Your task to perform on an android device: toggle priority inbox in the gmail app Image 0: 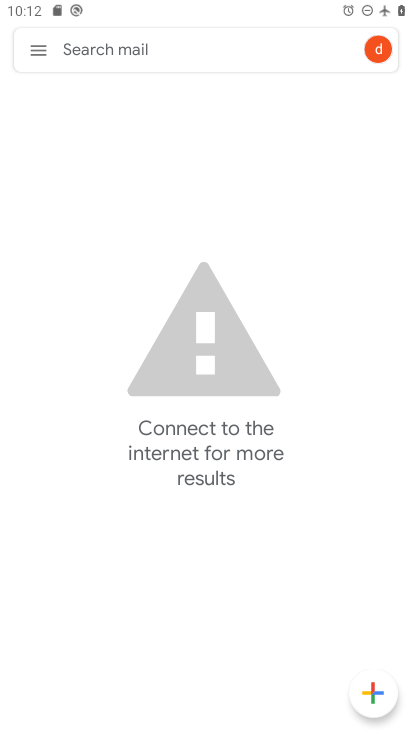
Step 0: press home button
Your task to perform on an android device: toggle priority inbox in the gmail app Image 1: 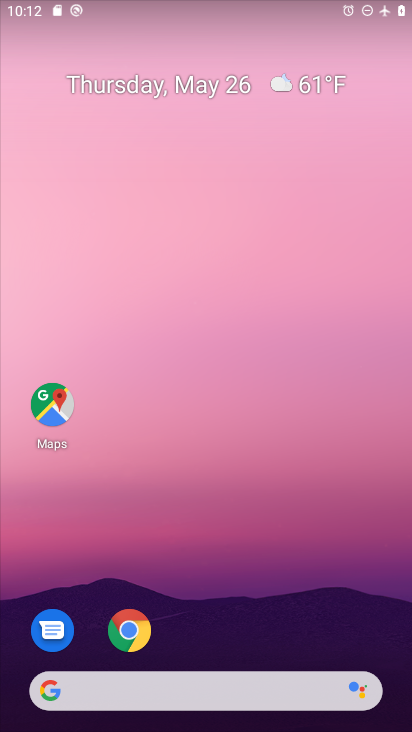
Step 1: drag from (210, 681) to (155, 28)
Your task to perform on an android device: toggle priority inbox in the gmail app Image 2: 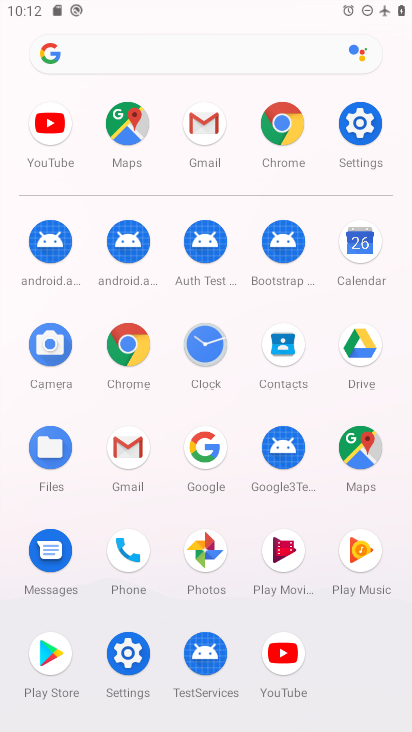
Step 2: click (112, 457)
Your task to perform on an android device: toggle priority inbox in the gmail app Image 3: 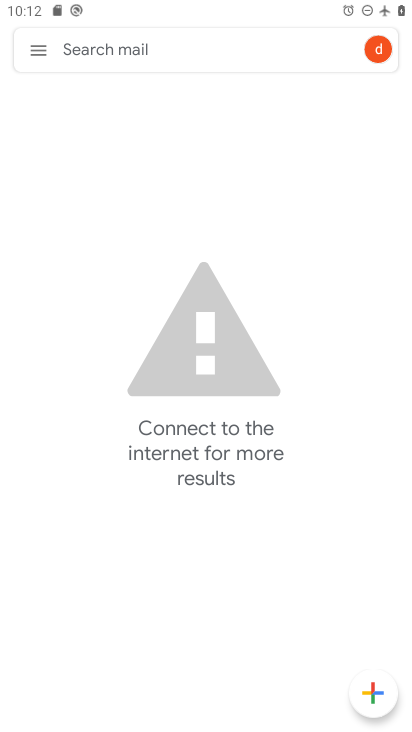
Step 3: click (35, 42)
Your task to perform on an android device: toggle priority inbox in the gmail app Image 4: 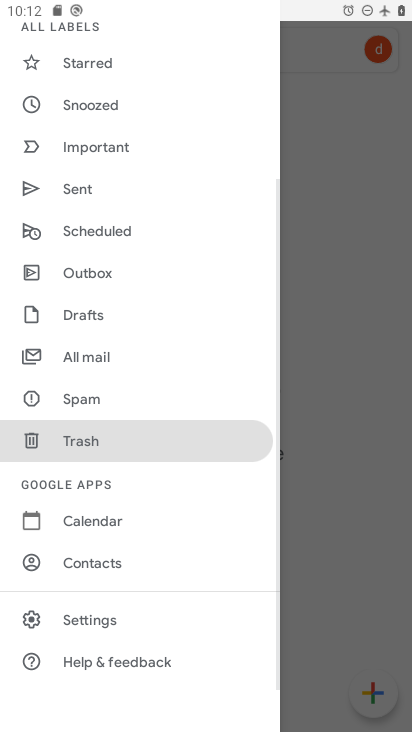
Step 4: click (67, 613)
Your task to perform on an android device: toggle priority inbox in the gmail app Image 5: 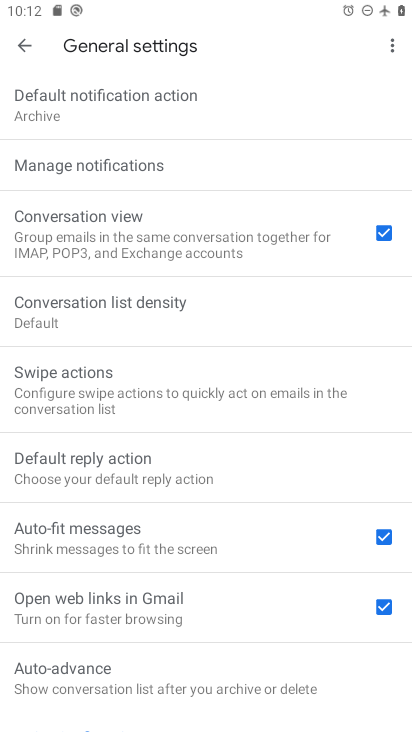
Step 5: click (29, 46)
Your task to perform on an android device: toggle priority inbox in the gmail app Image 6: 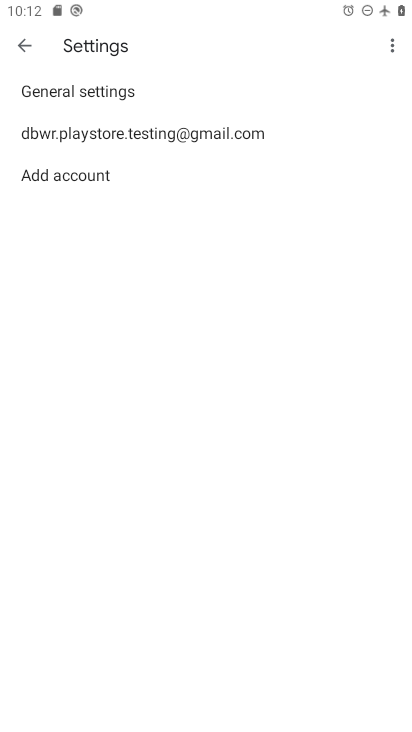
Step 6: click (53, 148)
Your task to perform on an android device: toggle priority inbox in the gmail app Image 7: 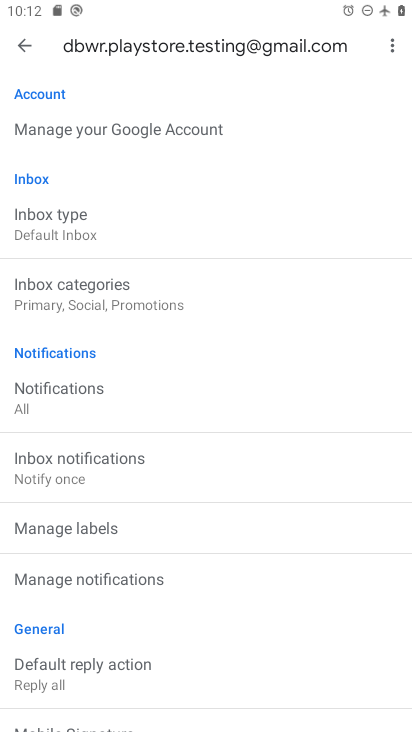
Step 7: click (59, 216)
Your task to perform on an android device: toggle priority inbox in the gmail app Image 8: 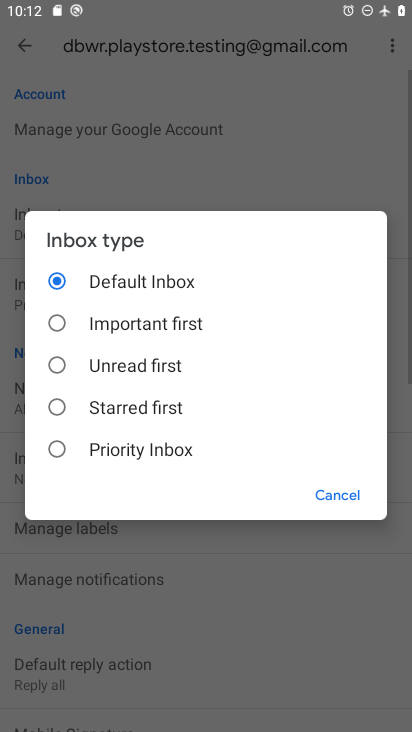
Step 8: click (90, 439)
Your task to perform on an android device: toggle priority inbox in the gmail app Image 9: 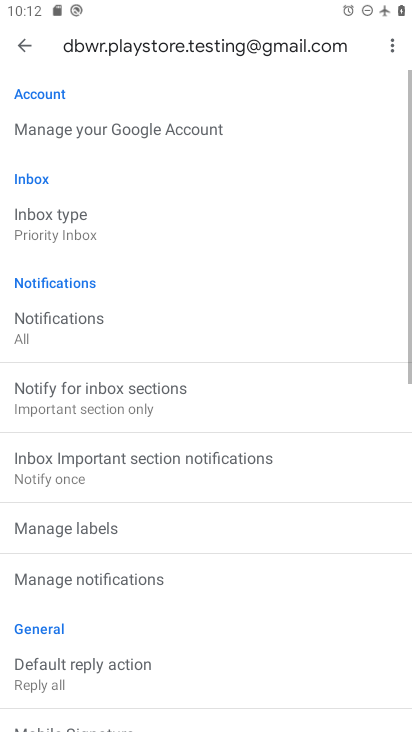
Step 9: task complete